Your task to perform on an android device: Open network settings Image 0: 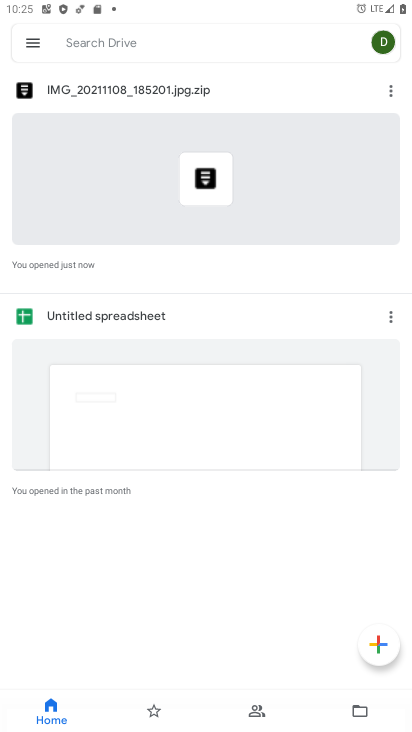
Step 0: press home button
Your task to perform on an android device: Open network settings Image 1: 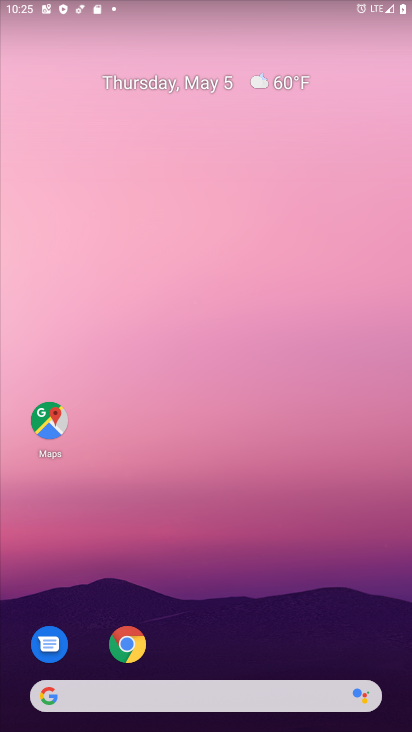
Step 1: drag from (215, 645) to (234, 141)
Your task to perform on an android device: Open network settings Image 2: 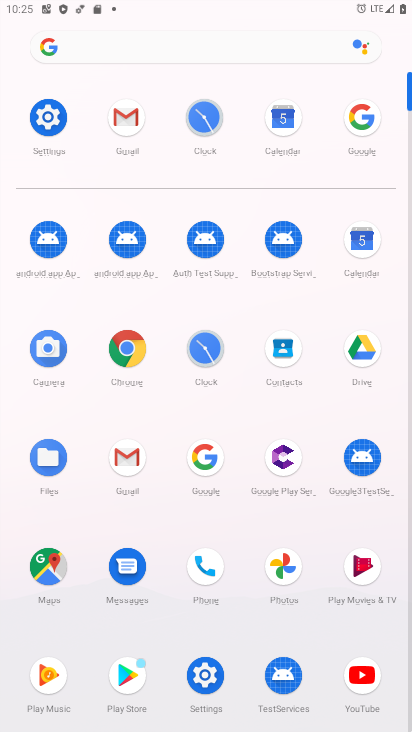
Step 2: click (204, 683)
Your task to perform on an android device: Open network settings Image 3: 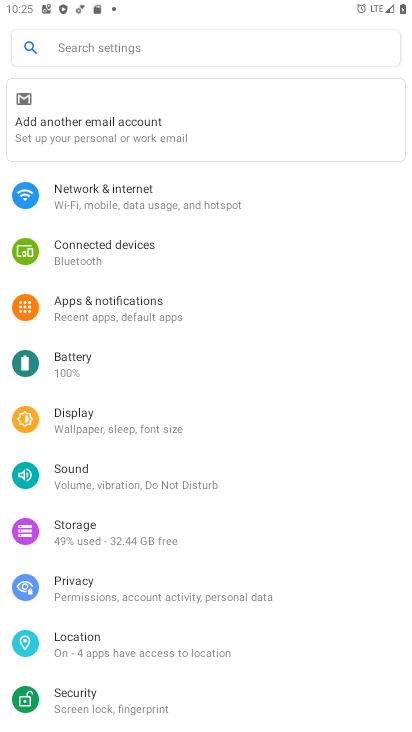
Step 3: click (128, 184)
Your task to perform on an android device: Open network settings Image 4: 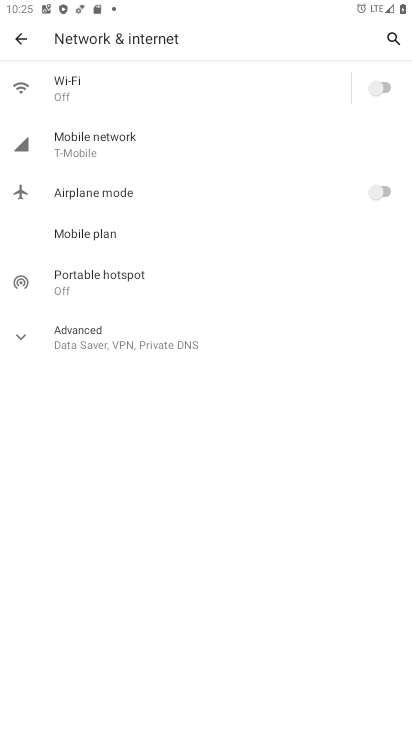
Step 4: task complete